Your task to perform on an android device: set the timer Image 0: 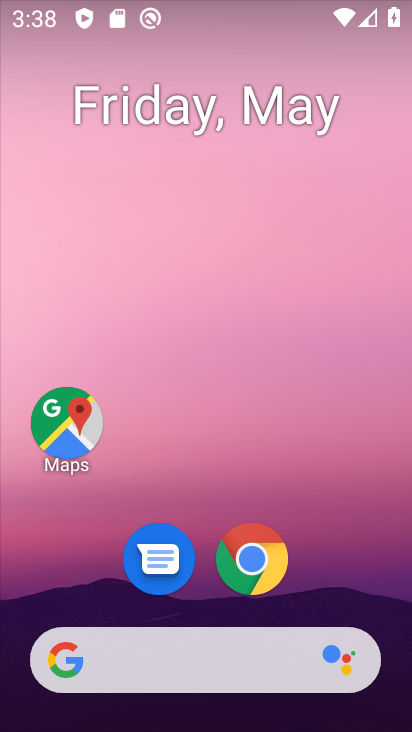
Step 0: drag from (352, 570) to (346, 155)
Your task to perform on an android device: set the timer Image 1: 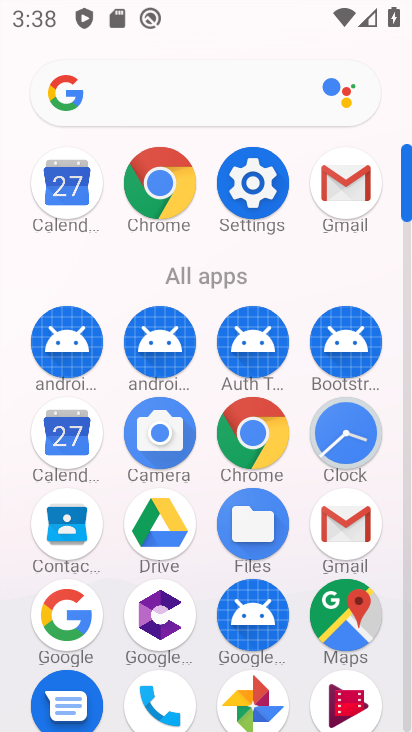
Step 1: click (329, 436)
Your task to perform on an android device: set the timer Image 2: 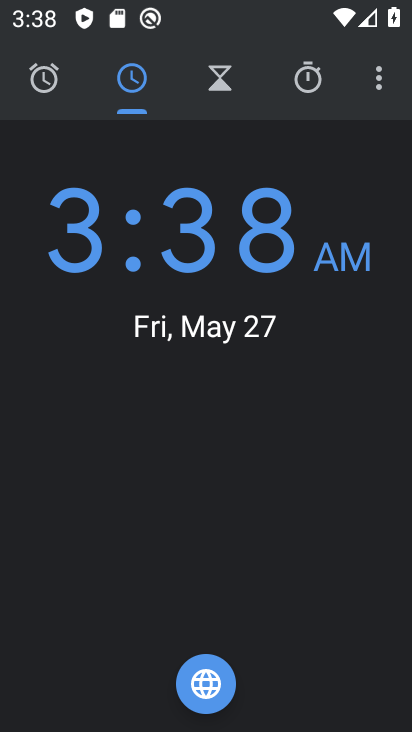
Step 2: task complete